Your task to perform on an android device: Open accessibility settings Image 0: 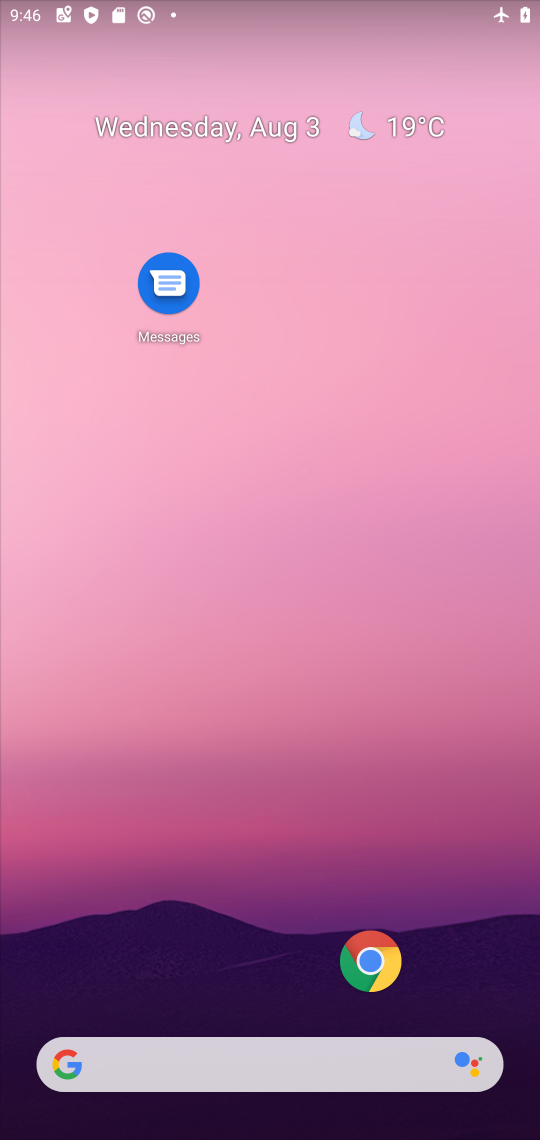
Step 0: drag from (295, 1025) to (197, 29)
Your task to perform on an android device: Open accessibility settings Image 1: 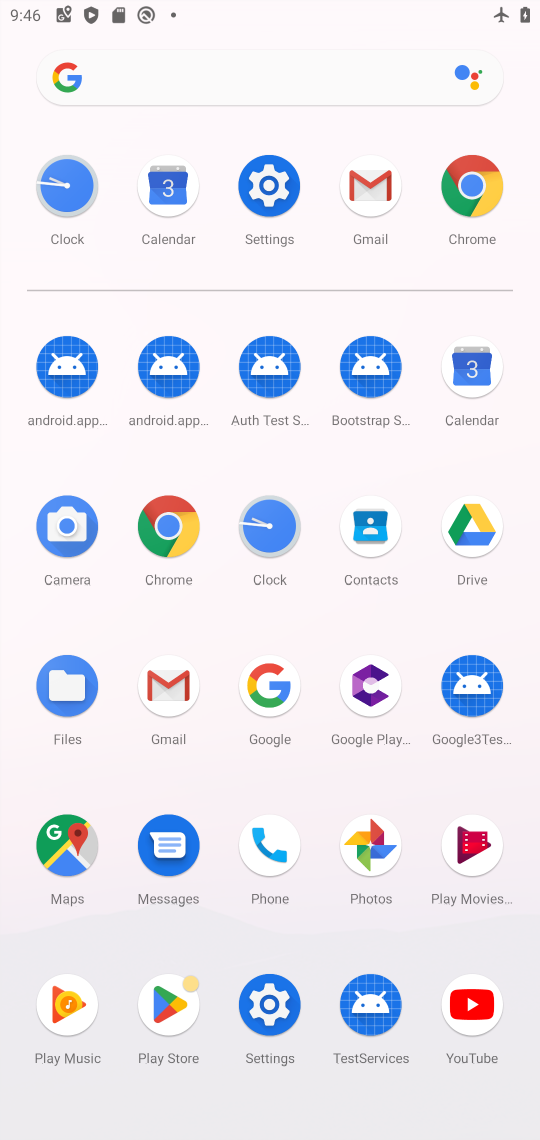
Step 1: click (287, 1013)
Your task to perform on an android device: Open accessibility settings Image 2: 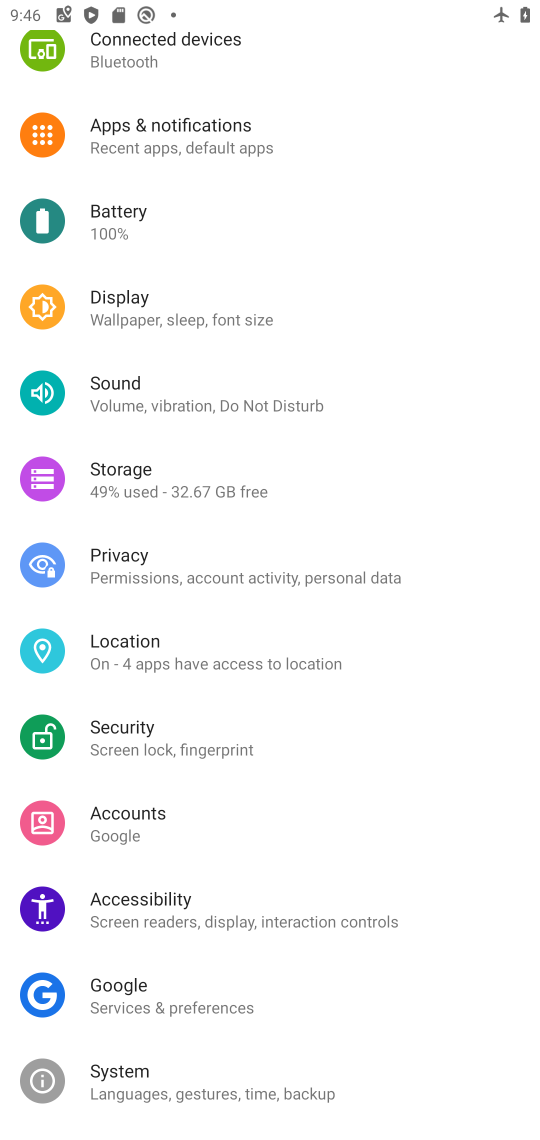
Step 2: click (190, 930)
Your task to perform on an android device: Open accessibility settings Image 3: 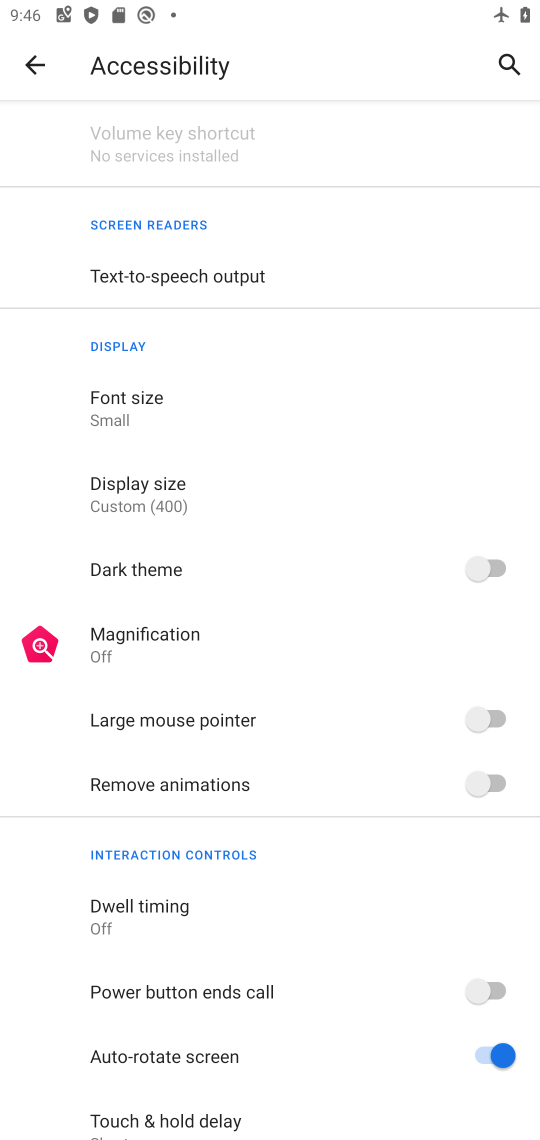
Step 3: task complete